Your task to perform on an android device: Open sound settings Image 0: 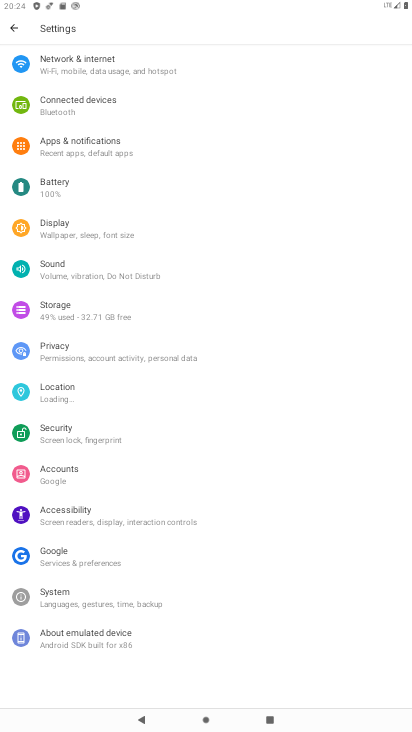
Step 0: click (49, 259)
Your task to perform on an android device: Open sound settings Image 1: 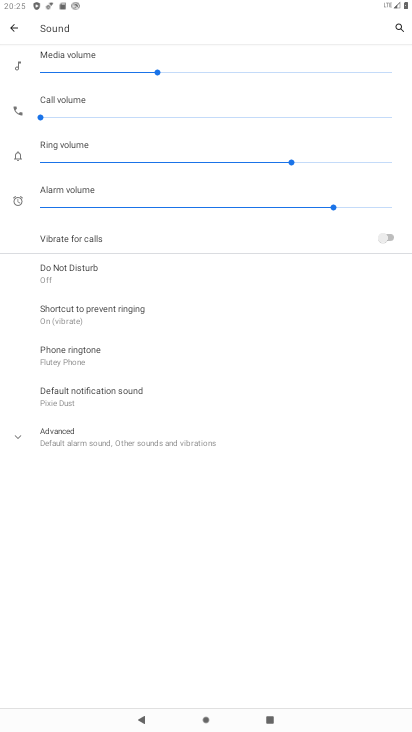
Step 1: task complete